Your task to perform on an android device: change your default location settings in chrome Image 0: 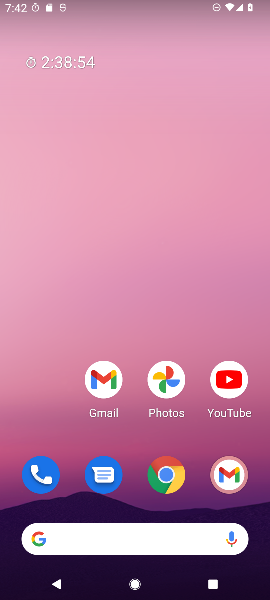
Step 0: drag from (49, 275) to (67, 136)
Your task to perform on an android device: change your default location settings in chrome Image 1: 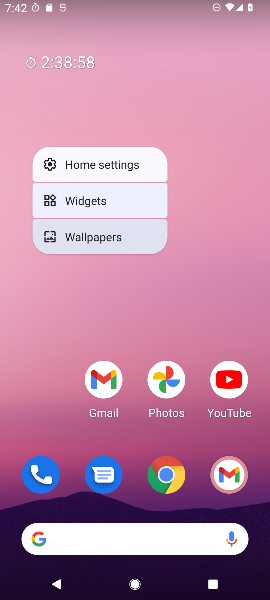
Step 1: click (238, 248)
Your task to perform on an android device: change your default location settings in chrome Image 2: 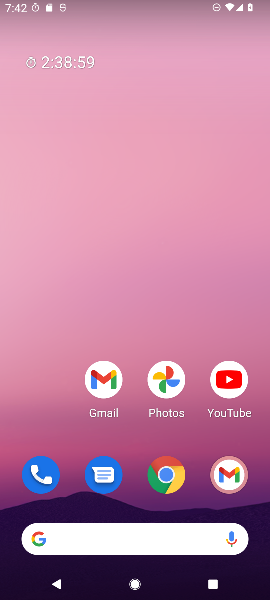
Step 2: drag from (44, 424) to (46, 92)
Your task to perform on an android device: change your default location settings in chrome Image 3: 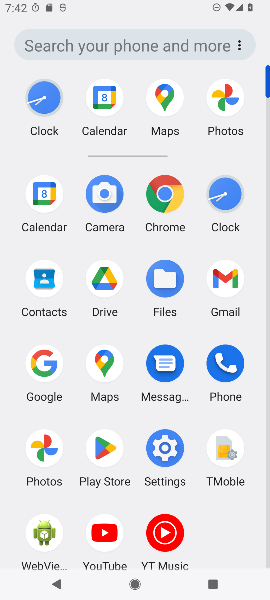
Step 3: click (167, 197)
Your task to perform on an android device: change your default location settings in chrome Image 4: 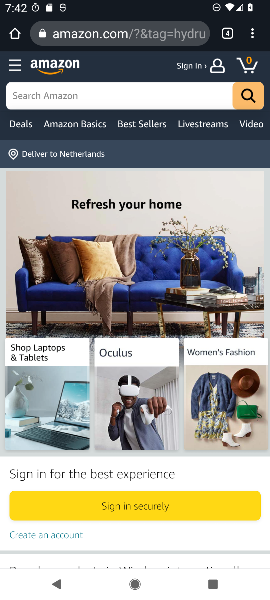
Step 4: click (254, 38)
Your task to perform on an android device: change your default location settings in chrome Image 5: 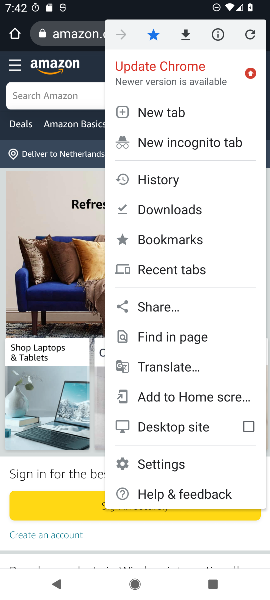
Step 5: click (175, 466)
Your task to perform on an android device: change your default location settings in chrome Image 6: 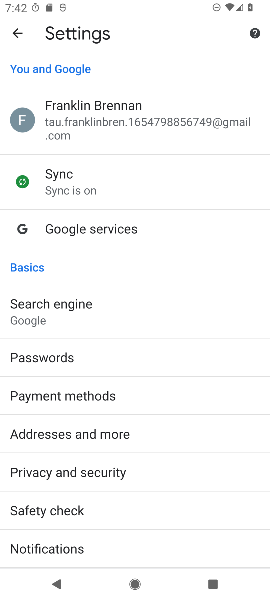
Step 6: drag from (199, 411) to (196, 313)
Your task to perform on an android device: change your default location settings in chrome Image 7: 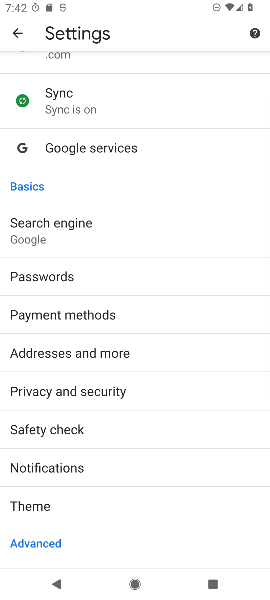
Step 7: drag from (192, 435) to (203, 317)
Your task to perform on an android device: change your default location settings in chrome Image 8: 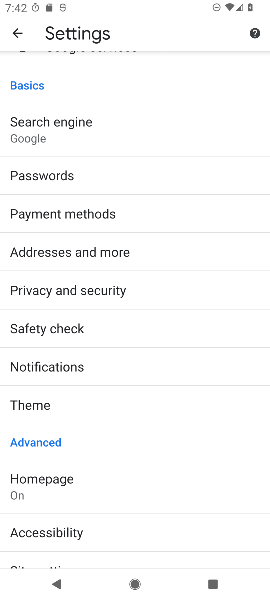
Step 8: drag from (202, 446) to (213, 331)
Your task to perform on an android device: change your default location settings in chrome Image 9: 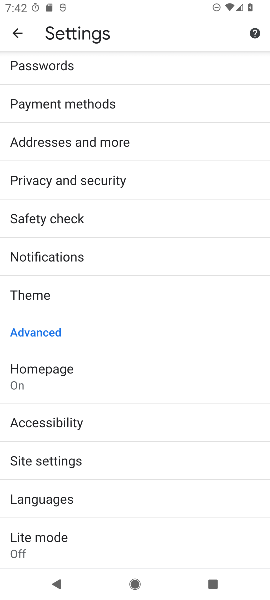
Step 9: drag from (200, 432) to (210, 310)
Your task to perform on an android device: change your default location settings in chrome Image 10: 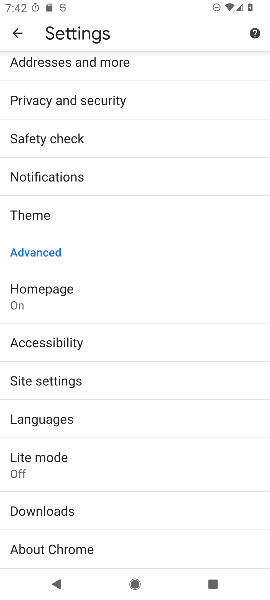
Step 10: drag from (191, 426) to (198, 309)
Your task to perform on an android device: change your default location settings in chrome Image 11: 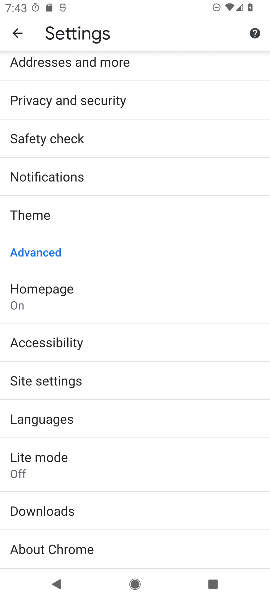
Step 11: click (144, 376)
Your task to perform on an android device: change your default location settings in chrome Image 12: 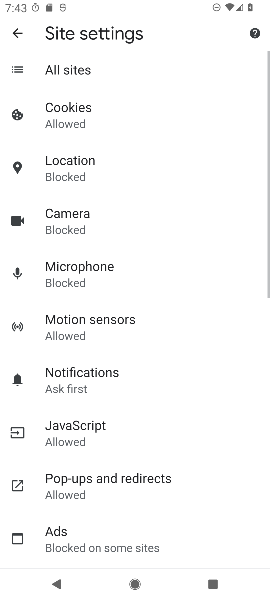
Step 12: drag from (172, 419) to (203, 328)
Your task to perform on an android device: change your default location settings in chrome Image 13: 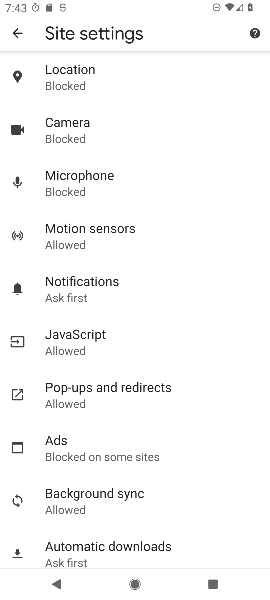
Step 13: drag from (212, 434) to (213, 312)
Your task to perform on an android device: change your default location settings in chrome Image 14: 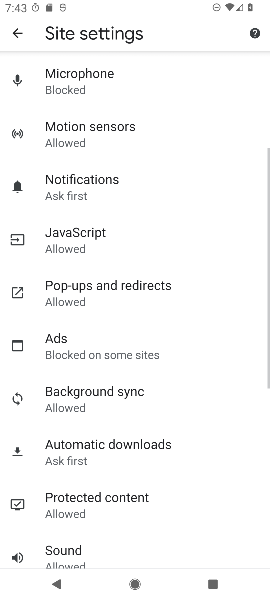
Step 14: drag from (210, 186) to (210, 309)
Your task to perform on an android device: change your default location settings in chrome Image 15: 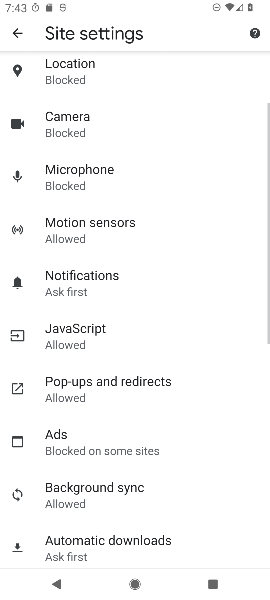
Step 15: drag from (210, 190) to (212, 346)
Your task to perform on an android device: change your default location settings in chrome Image 16: 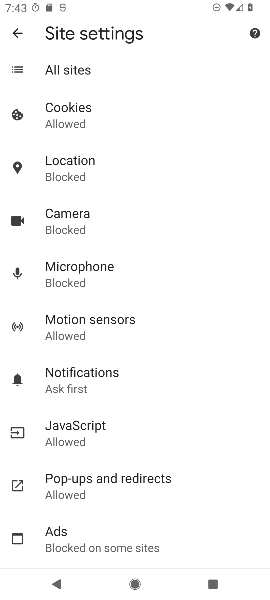
Step 16: drag from (223, 239) to (227, 331)
Your task to perform on an android device: change your default location settings in chrome Image 17: 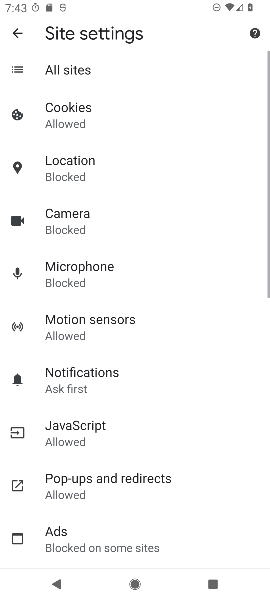
Step 17: drag from (227, 163) to (232, 313)
Your task to perform on an android device: change your default location settings in chrome Image 18: 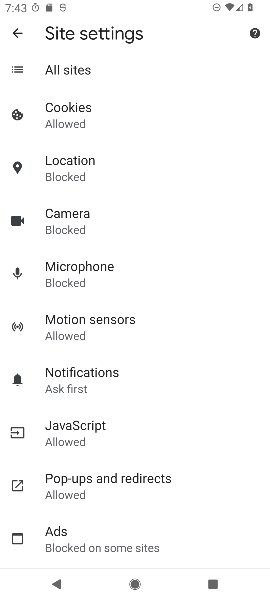
Step 18: click (87, 164)
Your task to perform on an android device: change your default location settings in chrome Image 19: 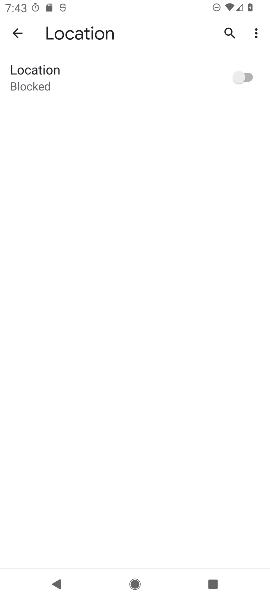
Step 19: click (233, 79)
Your task to perform on an android device: change your default location settings in chrome Image 20: 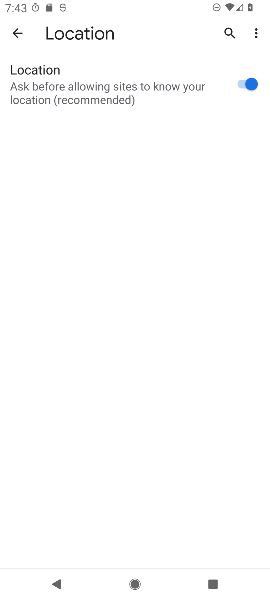
Step 20: task complete